Your task to perform on an android device: turn vacation reply on in the gmail app Image 0: 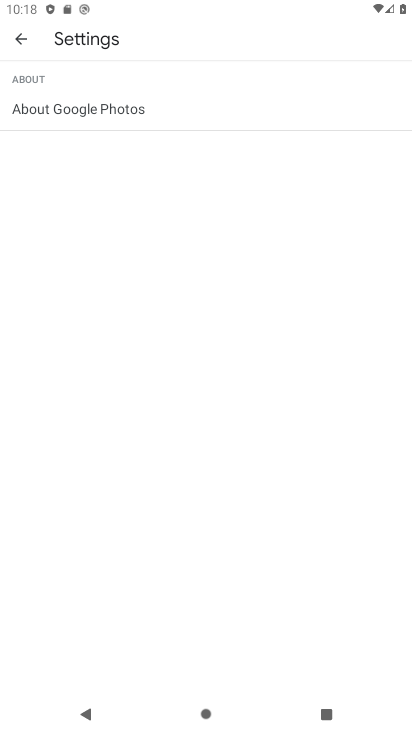
Step 0: press home button
Your task to perform on an android device: turn vacation reply on in the gmail app Image 1: 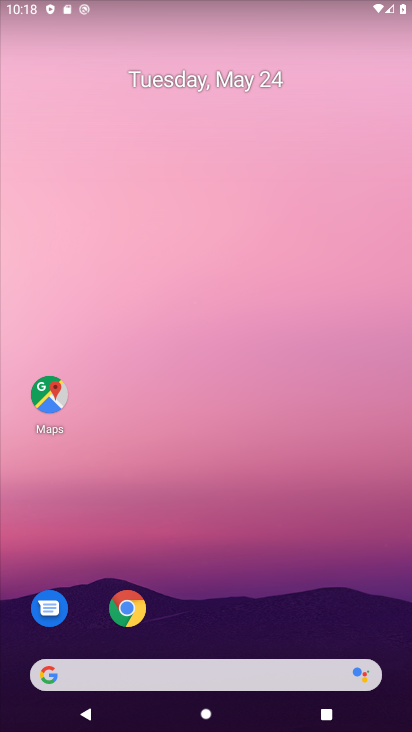
Step 1: drag from (378, 634) to (316, 112)
Your task to perform on an android device: turn vacation reply on in the gmail app Image 2: 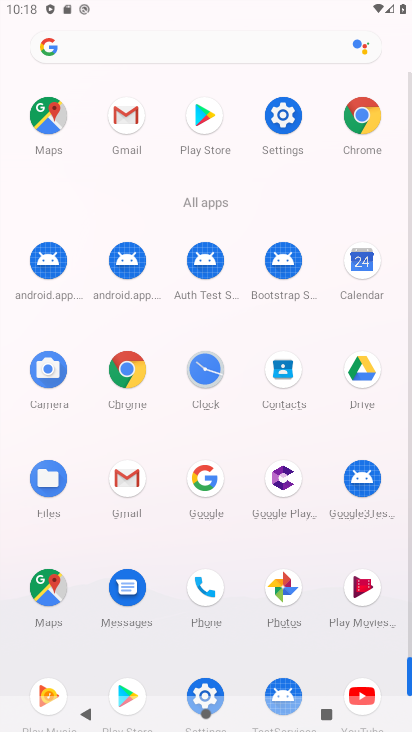
Step 2: click (123, 477)
Your task to perform on an android device: turn vacation reply on in the gmail app Image 3: 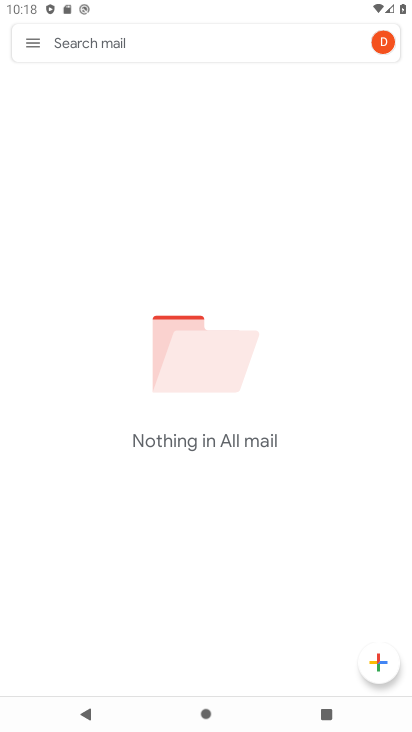
Step 3: click (30, 41)
Your task to perform on an android device: turn vacation reply on in the gmail app Image 4: 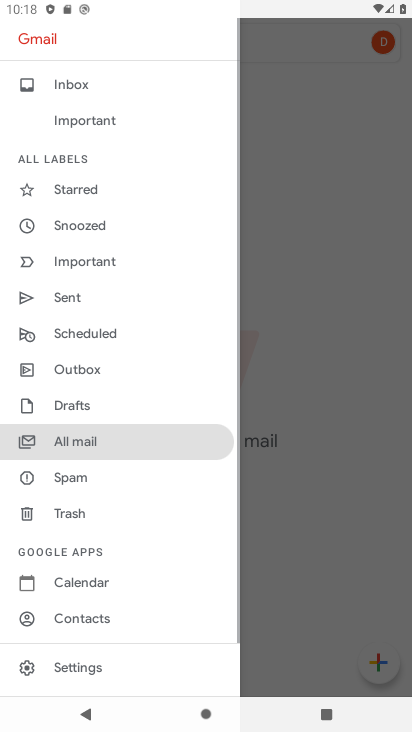
Step 4: drag from (171, 620) to (157, 120)
Your task to perform on an android device: turn vacation reply on in the gmail app Image 5: 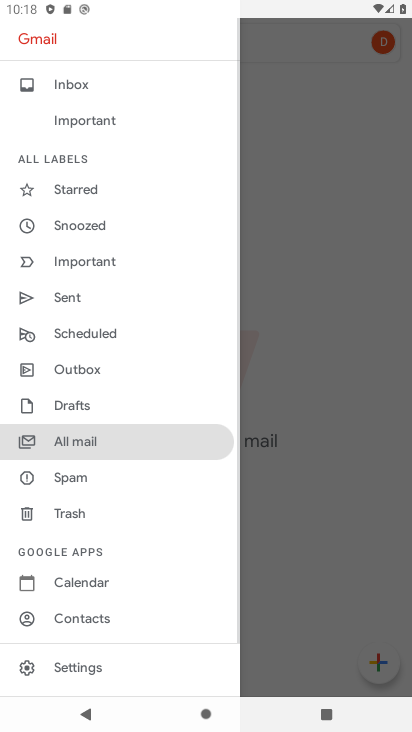
Step 5: click (78, 670)
Your task to perform on an android device: turn vacation reply on in the gmail app Image 6: 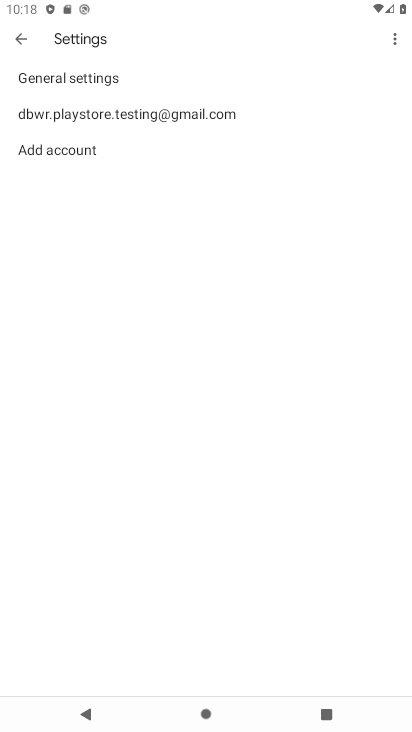
Step 6: click (108, 108)
Your task to perform on an android device: turn vacation reply on in the gmail app Image 7: 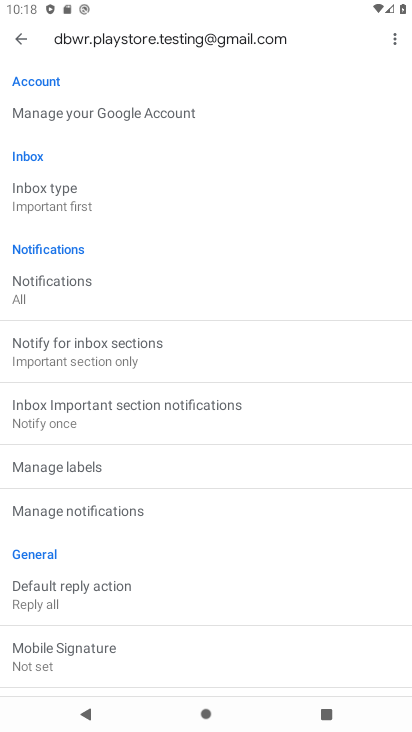
Step 7: drag from (160, 671) to (227, 287)
Your task to perform on an android device: turn vacation reply on in the gmail app Image 8: 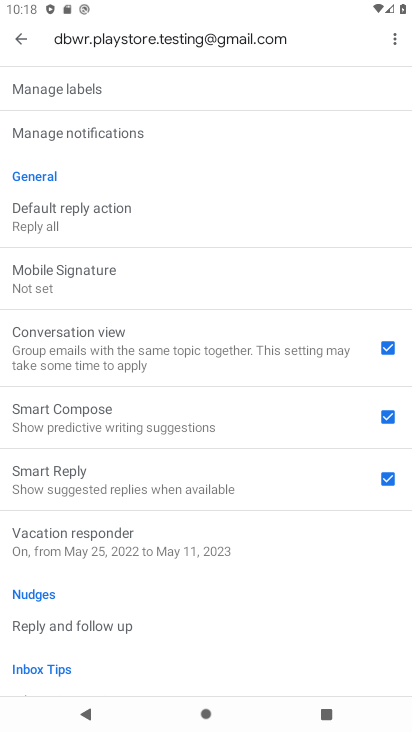
Step 8: click (137, 534)
Your task to perform on an android device: turn vacation reply on in the gmail app Image 9: 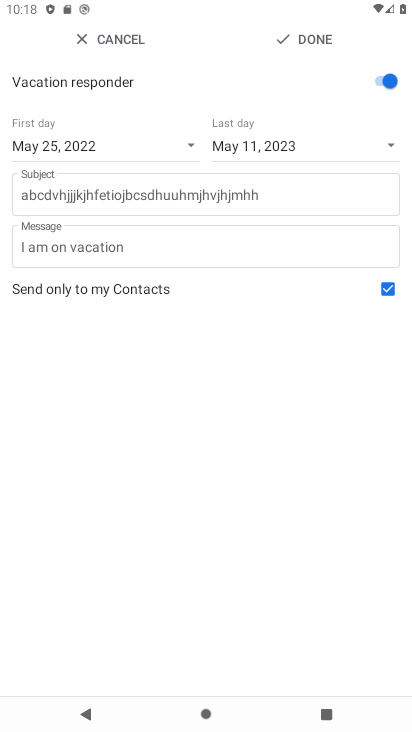
Step 9: task complete